Your task to perform on an android device: turn on translation in the chrome app Image 0: 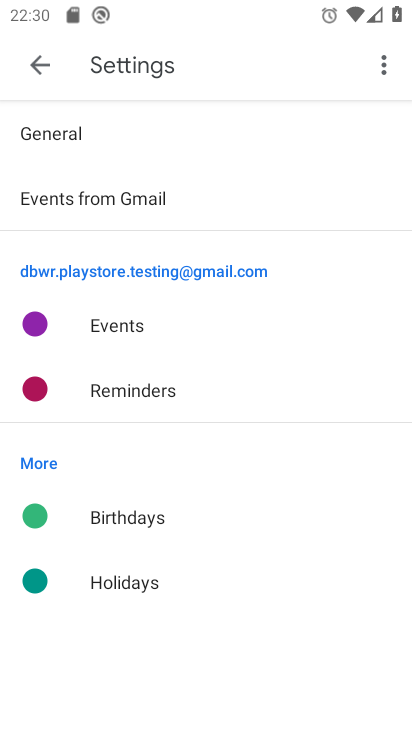
Step 0: press home button
Your task to perform on an android device: turn on translation in the chrome app Image 1: 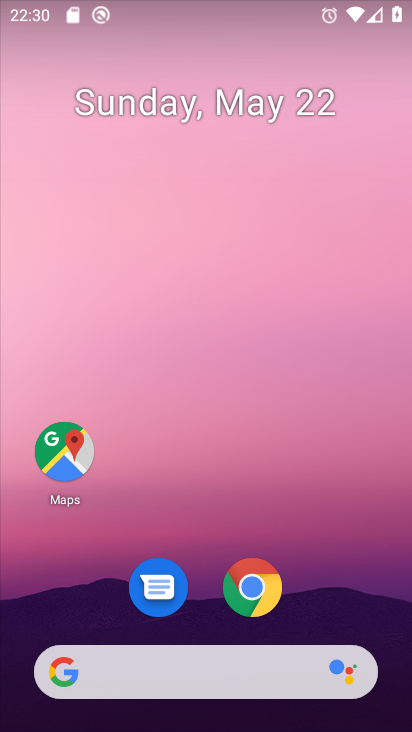
Step 1: drag from (224, 503) to (198, 2)
Your task to perform on an android device: turn on translation in the chrome app Image 2: 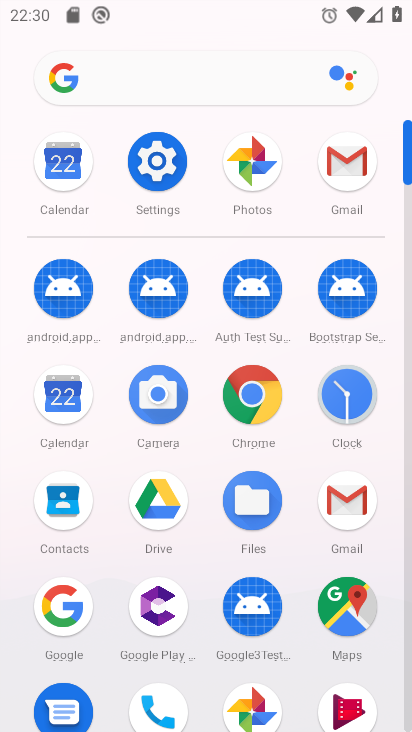
Step 2: click (244, 379)
Your task to perform on an android device: turn on translation in the chrome app Image 3: 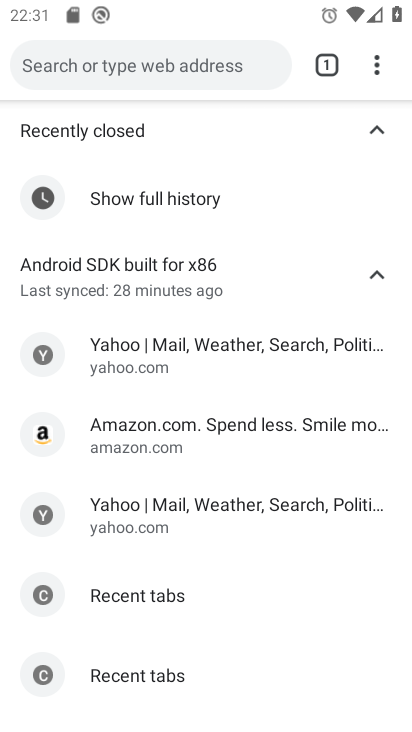
Step 3: drag from (262, 559) to (285, 154)
Your task to perform on an android device: turn on translation in the chrome app Image 4: 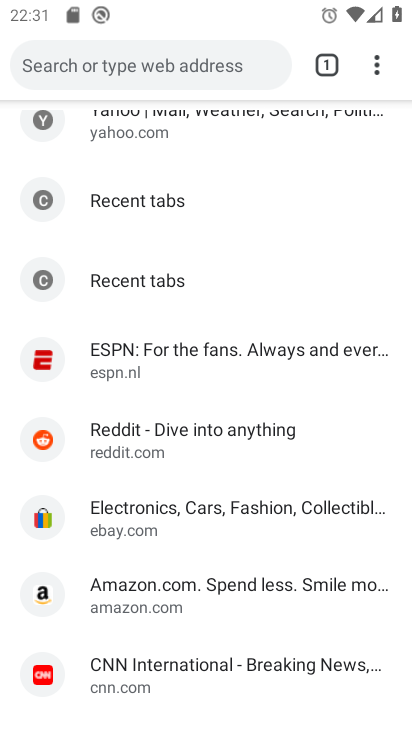
Step 4: click (371, 53)
Your task to perform on an android device: turn on translation in the chrome app Image 5: 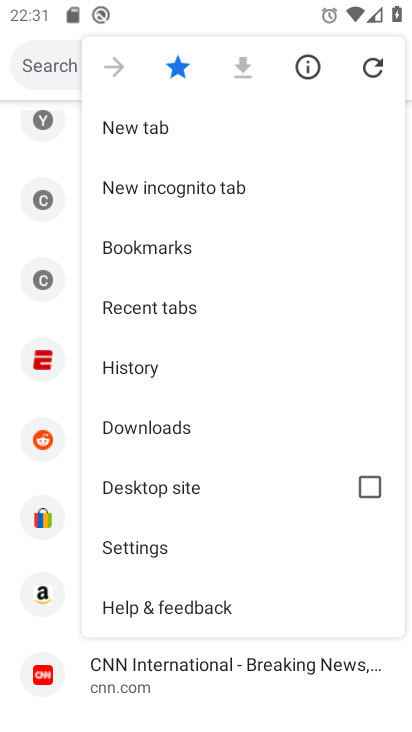
Step 5: click (162, 544)
Your task to perform on an android device: turn on translation in the chrome app Image 6: 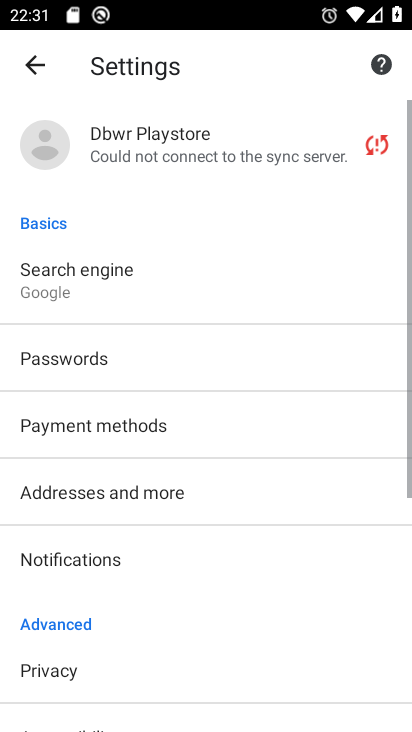
Step 6: drag from (186, 595) to (249, 225)
Your task to perform on an android device: turn on translation in the chrome app Image 7: 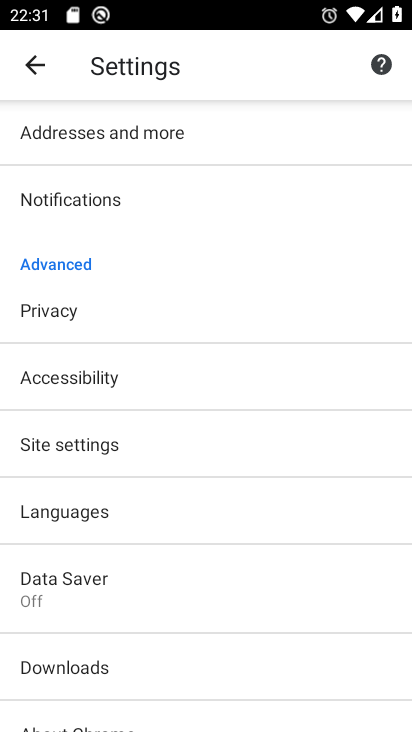
Step 7: click (215, 508)
Your task to perform on an android device: turn on translation in the chrome app Image 8: 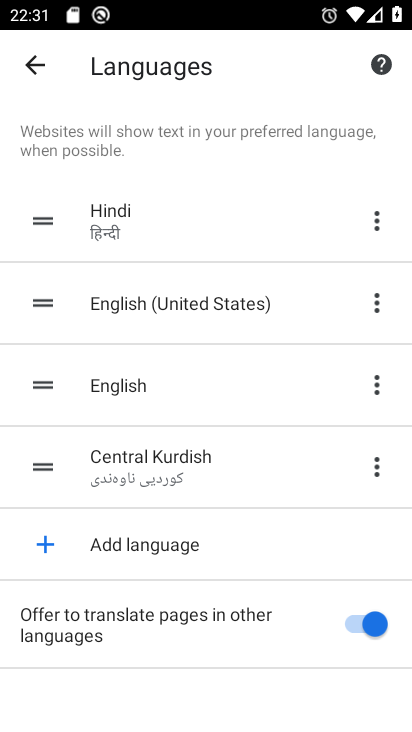
Step 8: task complete